Your task to perform on an android device: change timer sound Image 0: 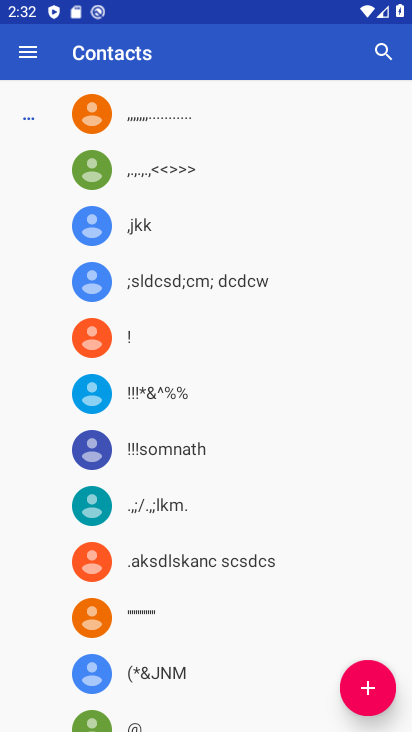
Step 0: press home button
Your task to perform on an android device: change timer sound Image 1: 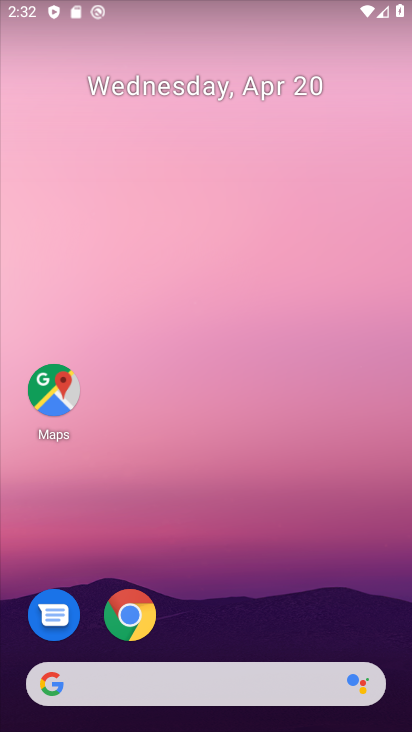
Step 1: drag from (189, 624) to (245, 250)
Your task to perform on an android device: change timer sound Image 2: 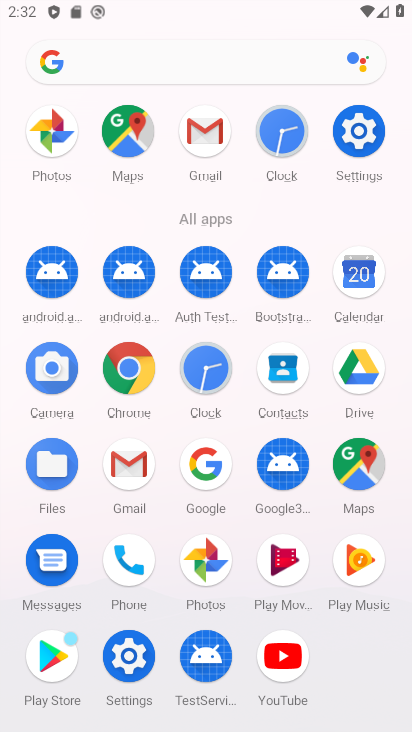
Step 2: click (119, 663)
Your task to perform on an android device: change timer sound Image 3: 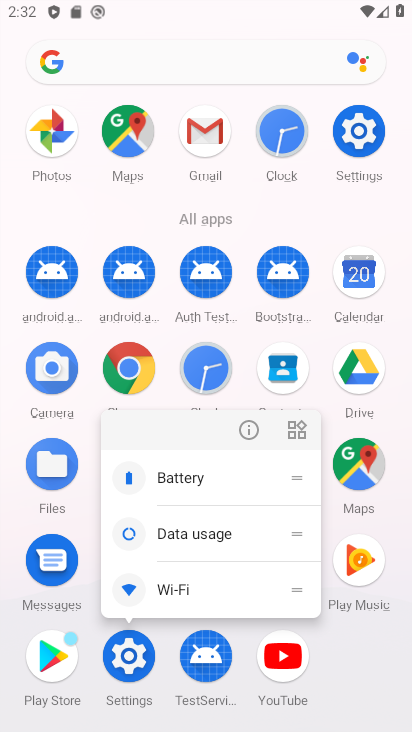
Step 3: click (220, 364)
Your task to perform on an android device: change timer sound Image 4: 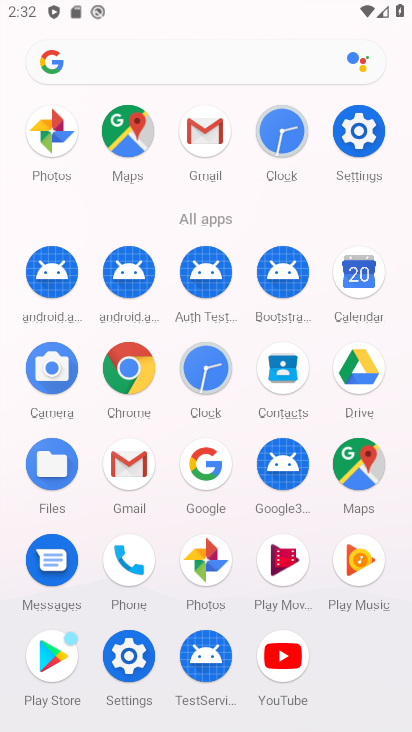
Step 4: click (202, 365)
Your task to perform on an android device: change timer sound Image 5: 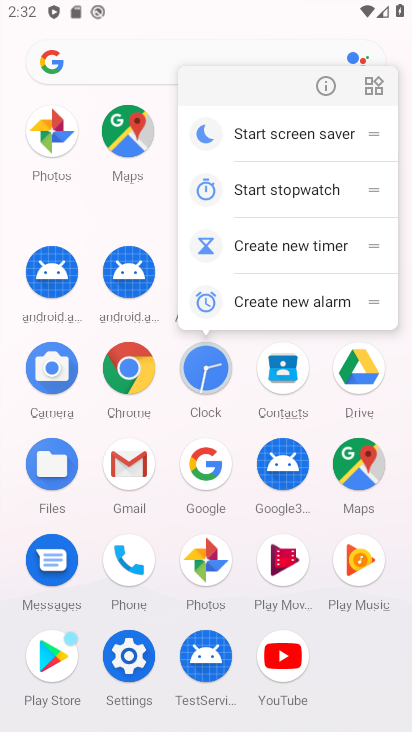
Step 5: click (321, 81)
Your task to perform on an android device: change timer sound Image 6: 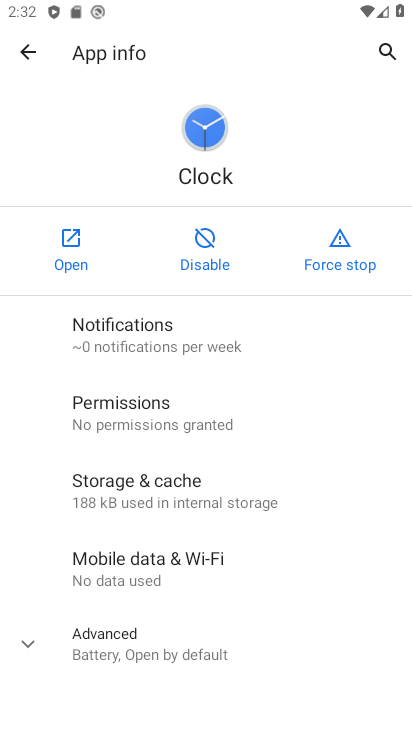
Step 6: click (81, 241)
Your task to perform on an android device: change timer sound Image 7: 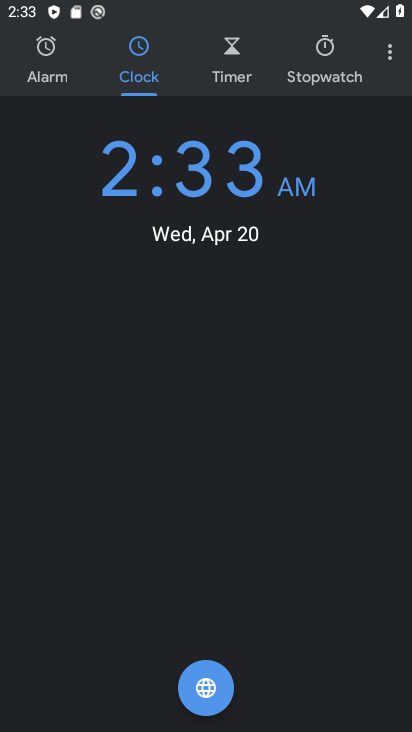
Step 7: click (215, 83)
Your task to perform on an android device: change timer sound Image 8: 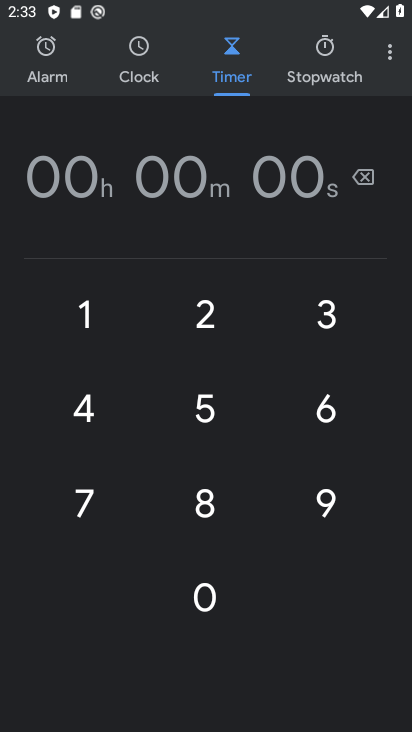
Step 8: click (301, 314)
Your task to perform on an android device: change timer sound Image 9: 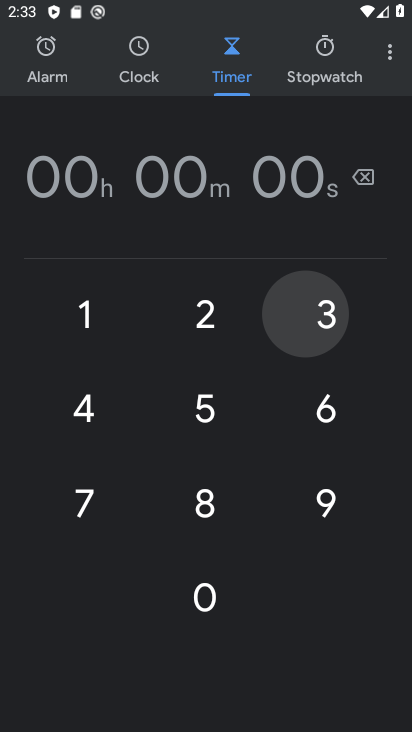
Step 9: click (201, 323)
Your task to perform on an android device: change timer sound Image 10: 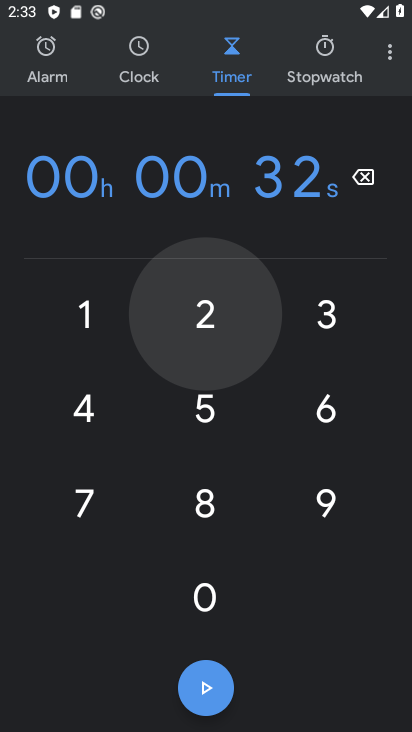
Step 10: click (193, 396)
Your task to perform on an android device: change timer sound Image 11: 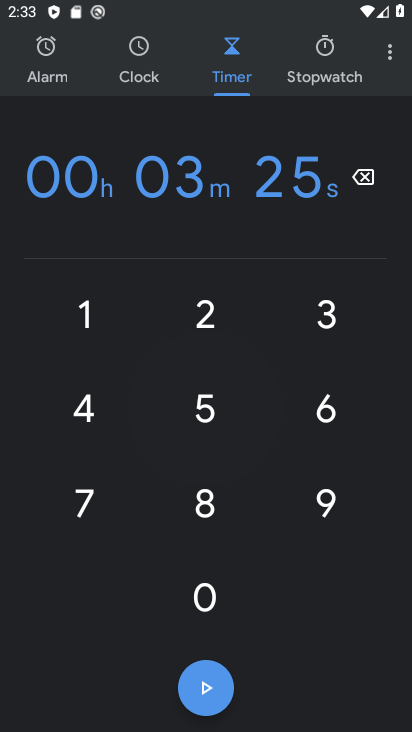
Step 11: click (316, 425)
Your task to perform on an android device: change timer sound Image 12: 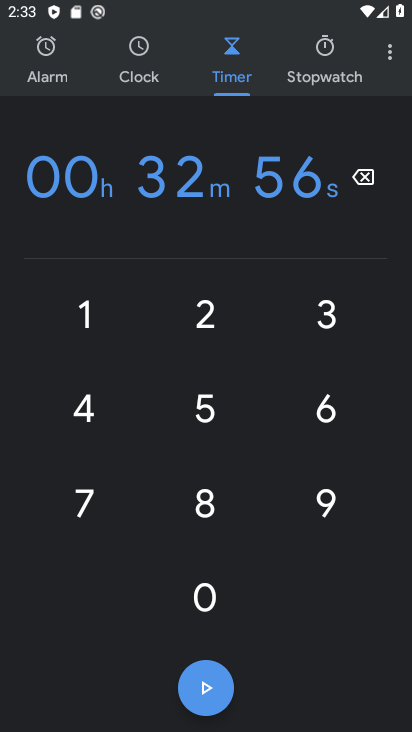
Step 12: click (201, 431)
Your task to perform on an android device: change timer sound Image 13: 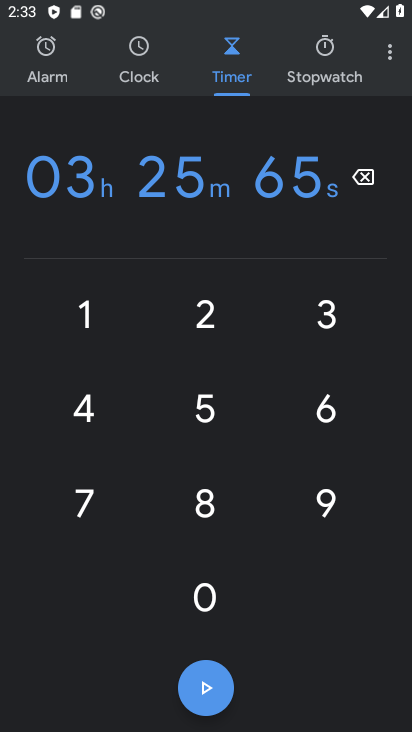
Step 13: click (211, 704)
Your task to perform on an android device: change timer sound Image 14: 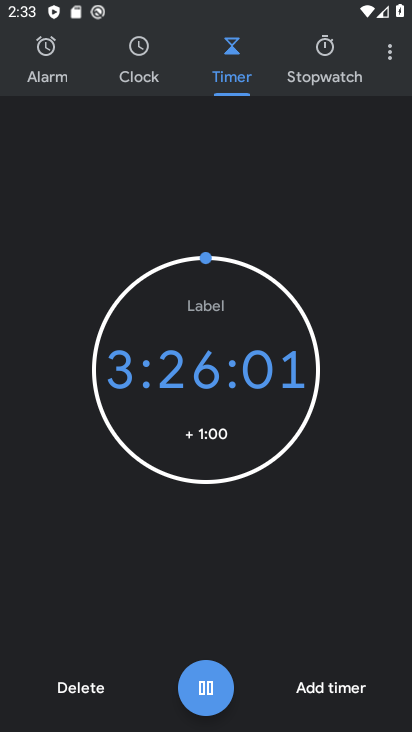
Step 14: task complete